Your task to perform on an android device: What is the news today? Image 0: 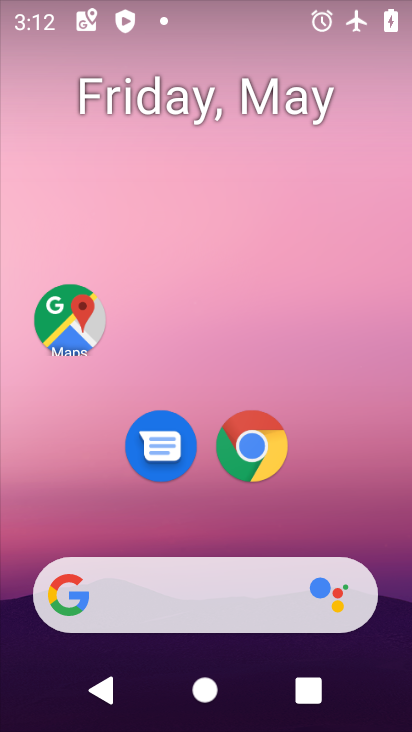
Step 0: drag from (287, 4) to (282, 290)
Your task to perform on an android device: What is the news today? Image 1: 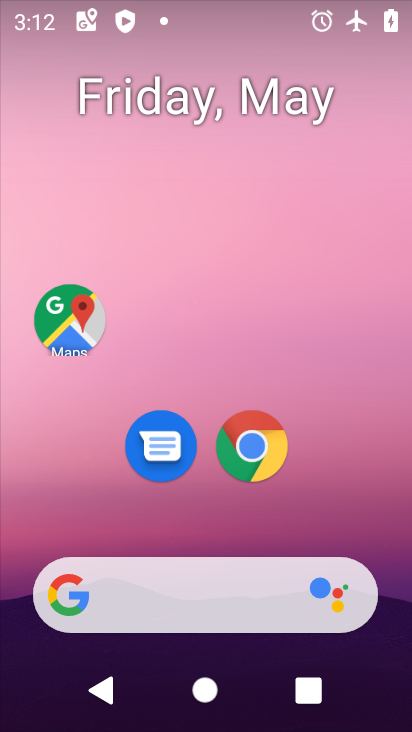
Step 1: drag from (311, 1) to (357, 535)
Your task to perform on an android device: What is the news today? Image 2: 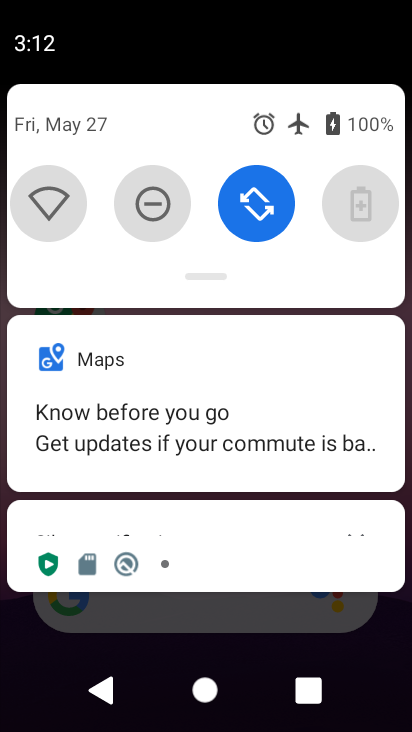
Step 2: drag from (210, 226) to (249, 535)
Your task to perform on an android device: What is the news today? Image 3: 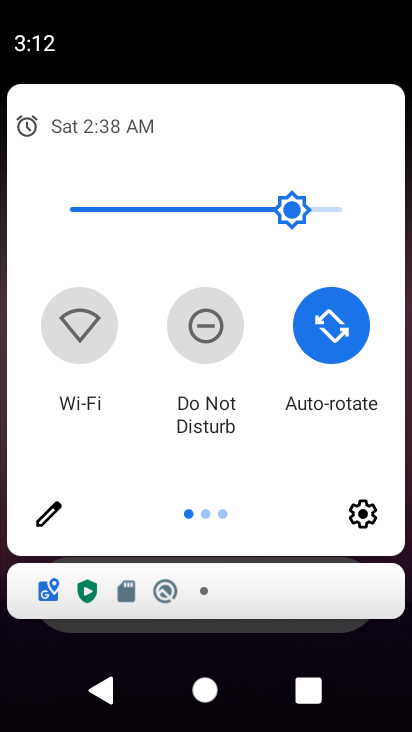
Step 3: drag from (388, 447) to (32, 443)
Your task to perform on an android device: What is the news today? Image 4: 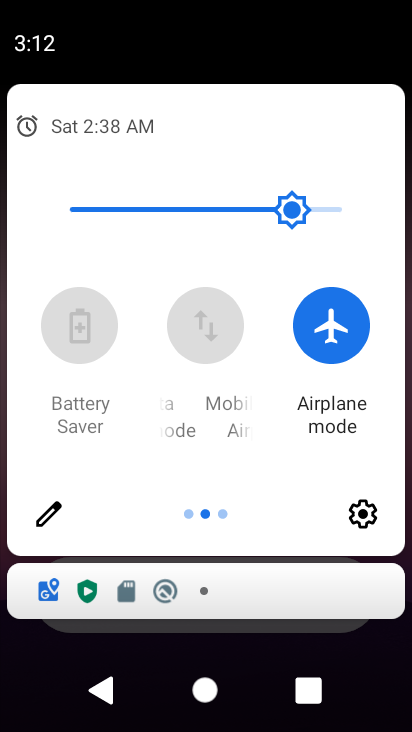
Step 4: click (343, 329)
Your task to perform on an android device: What is the news today? Image 5: 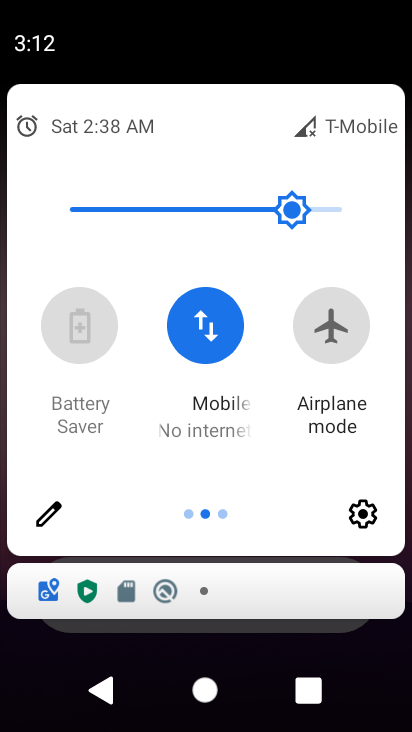
Step 5: press home button
Your task to perform on an android device: What is the news today? Image 6: 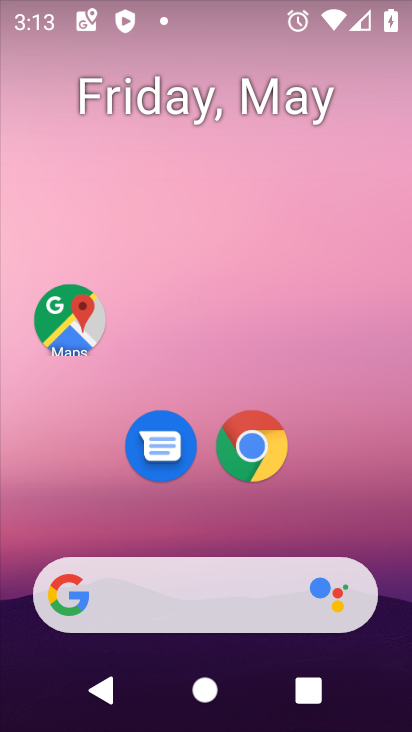
Step 6: drag from (404, 578) to (341, 213)
Your task to perform on an android device: What is the news today? Image 7: 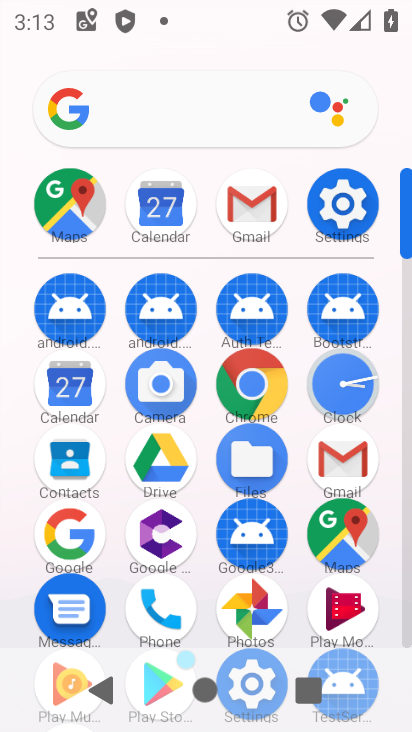
Step 7: click (258, 364)
Your task to perform on an android device: What is the news today? Image 8: 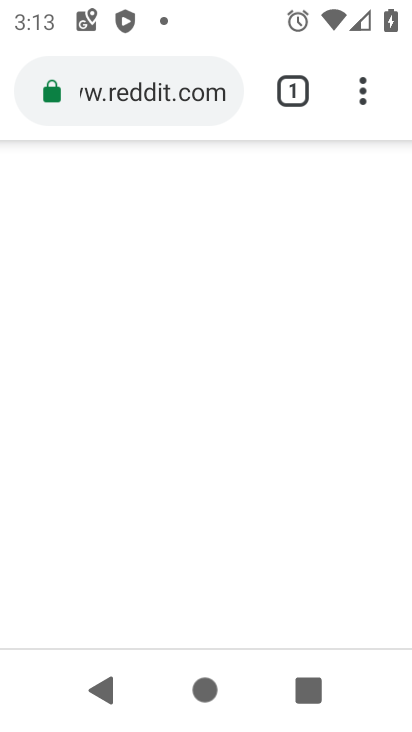
Step 8: click (170, 104)
Your task to perform on an android device: What is the news today? Image 9: 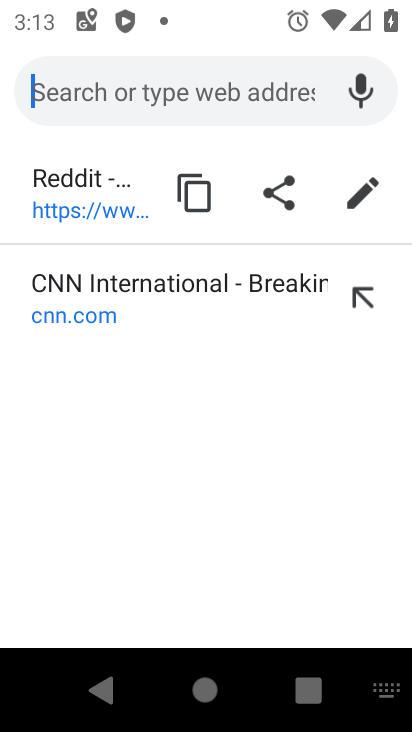
Step 9: type "What is the news today?"
Your task to perform on an android device: What is the news today? Image 10: 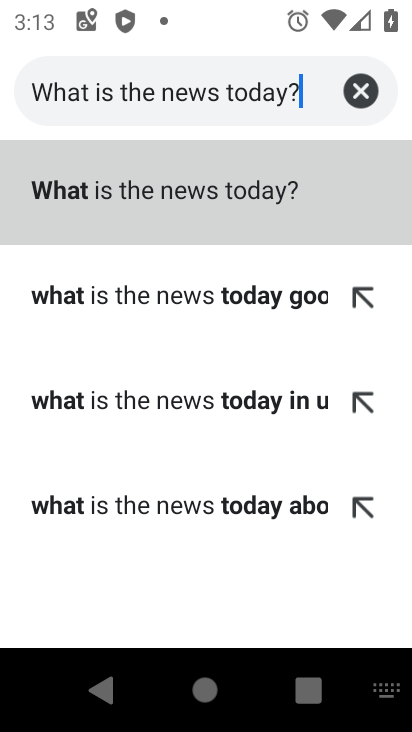
Step 10: click (255, 197)
Your task to perform on an android device: What is the news today? Image 11: 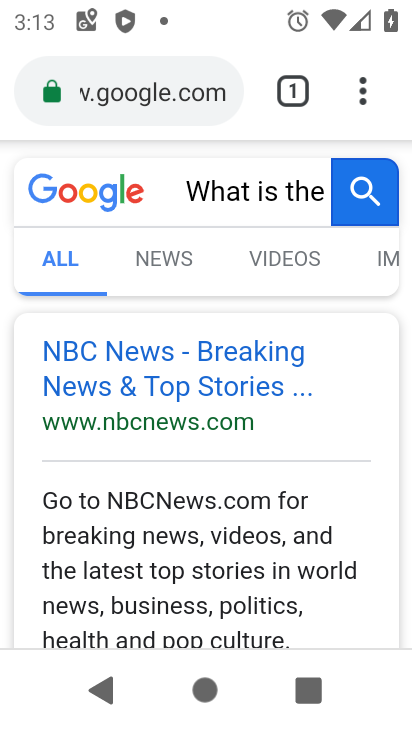
Step 11: click (228, 356)
Your task to perform on an android device: What is the news today? Image 12: 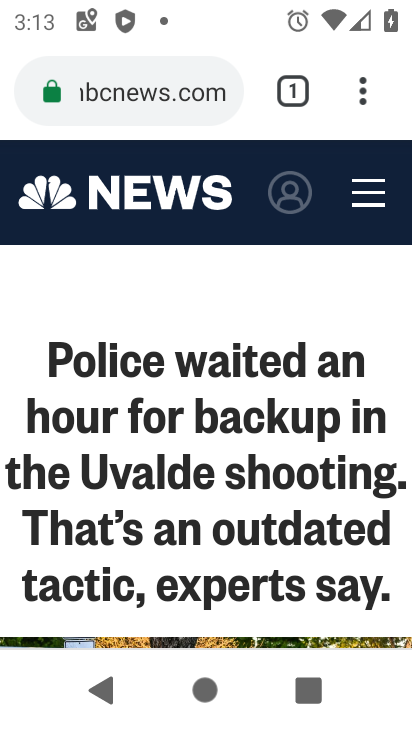
Step 12: task complete